Your task to perform on an android device: Open Chrome and go to the settings page Image 0: 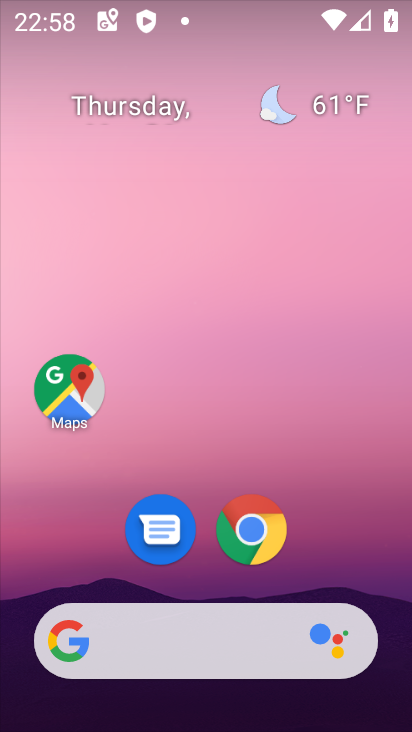
Step 0: drag from (367, 521) to (345, 173)
Your task to perform on an android device: Open Chrome and go to the settings page Image 1: 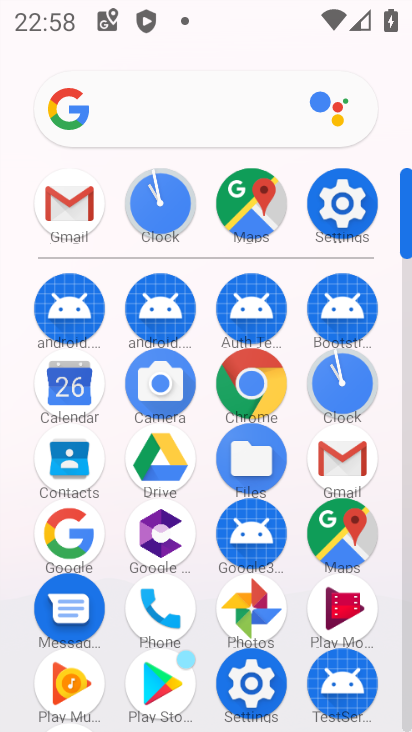
Step 1: click (235, 385)
Your task to perform on an android device: Open Chrome and go to the settings page Image 2: 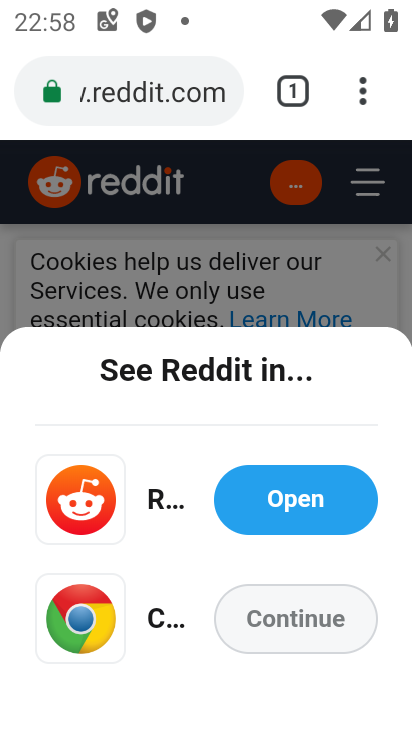
Step 2: click (365, 121)
Your task to perform on an android device: Open Chrome and go to the settings page Image 3: 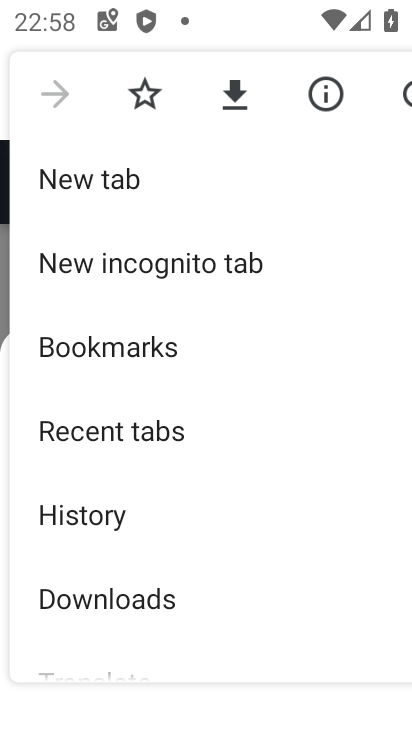
Step 3: drag from (193, 608) to (210, 317)
Your task to perform on an android device: Open Chrome and go to the settings page Image 4: 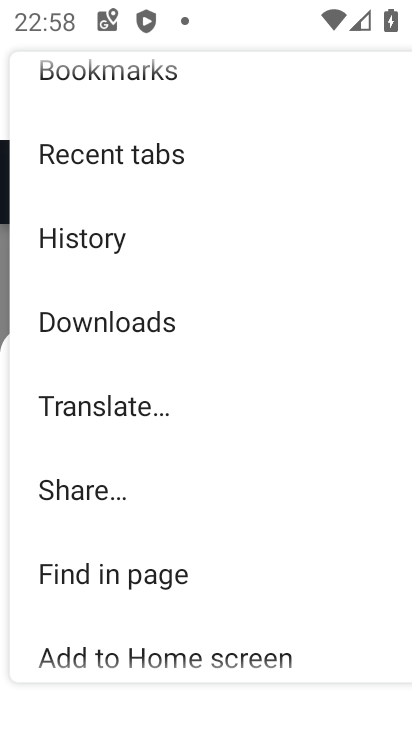
Step 4: drag from (119, 554) to (119, 293)
Your task to perform on an android device: Open Chrome and go to the settings page Image 5: 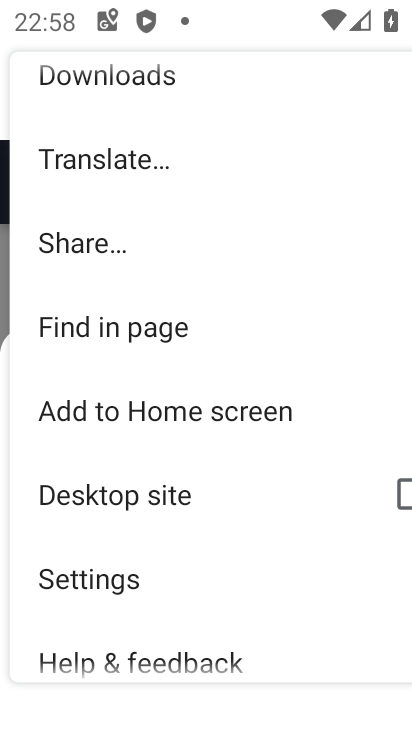
Step 5: click (147, 581)
Your task to perform on an android device: Open Chrome and go to the settings page Image 6: 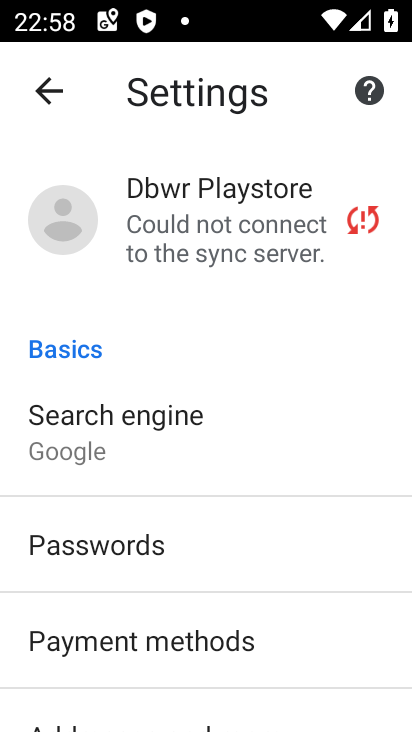
Step 6: task complete